Your task to perform on an android device: set the stopwatch Image 0: 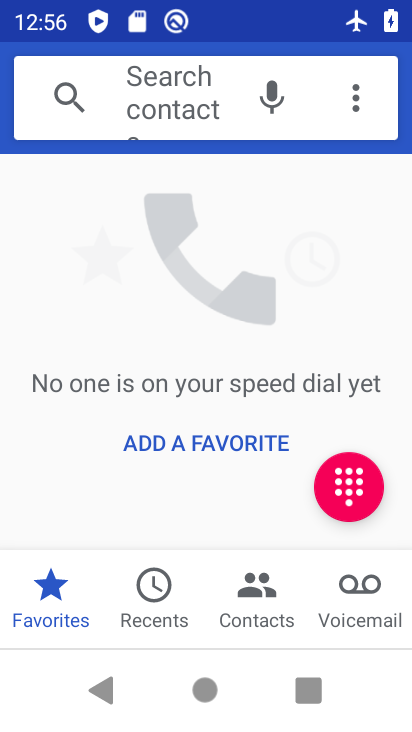
Step 0: press home button
Your task to perform on an android device: set the stopwatch Image 1: 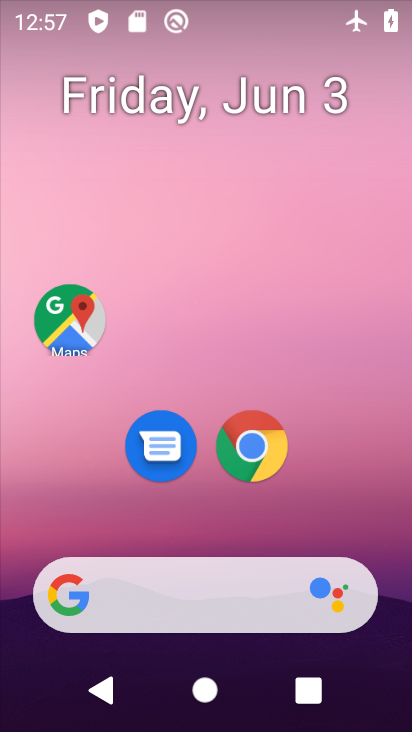
Step 1: drag from (248, 677) to (333, 16)
Your task to perform on an android device: set the stopwatch Image 2: 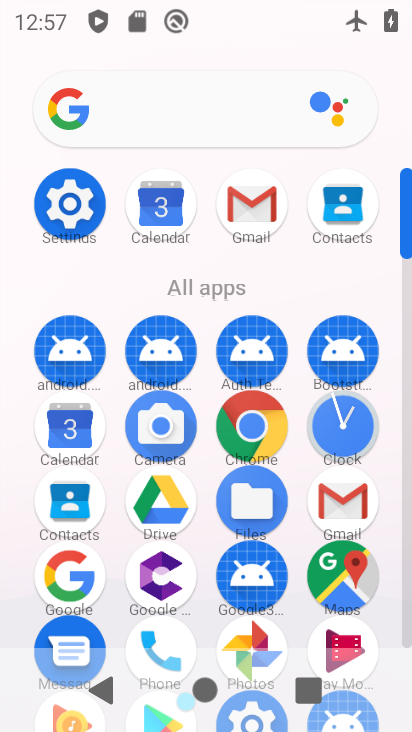
Step 2: click (339, 430)
Your task to perform on an android device: set the stopwatch Image 3: 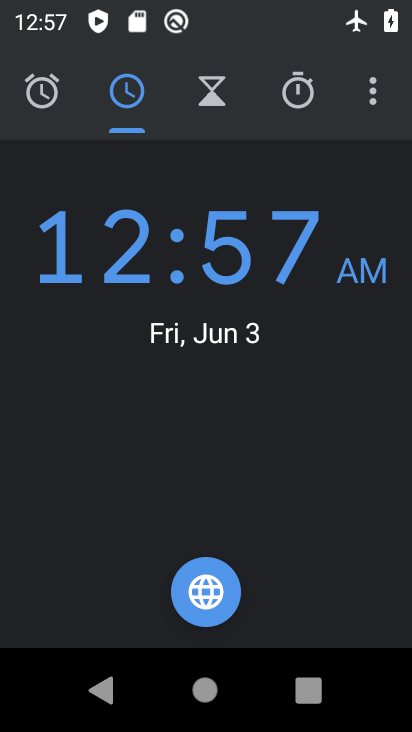
Step 3: click (300, 88)
Your task to perform on an android device: set the stopwatch Image 4: 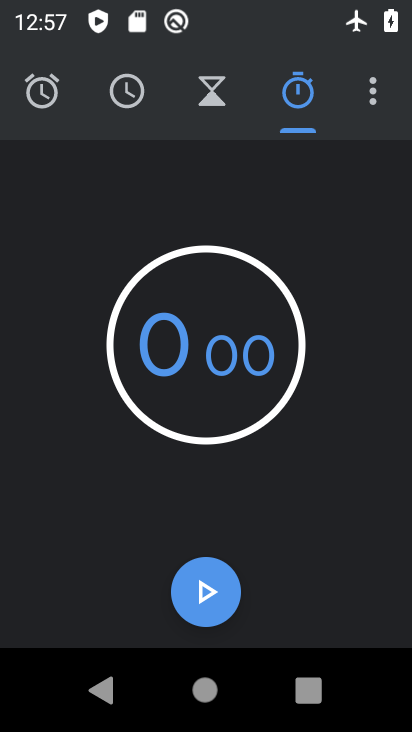
Step 4: task complete